Your task to perform on an android device: open app "Facebook Messenger" (install if not already installed) Image 0: 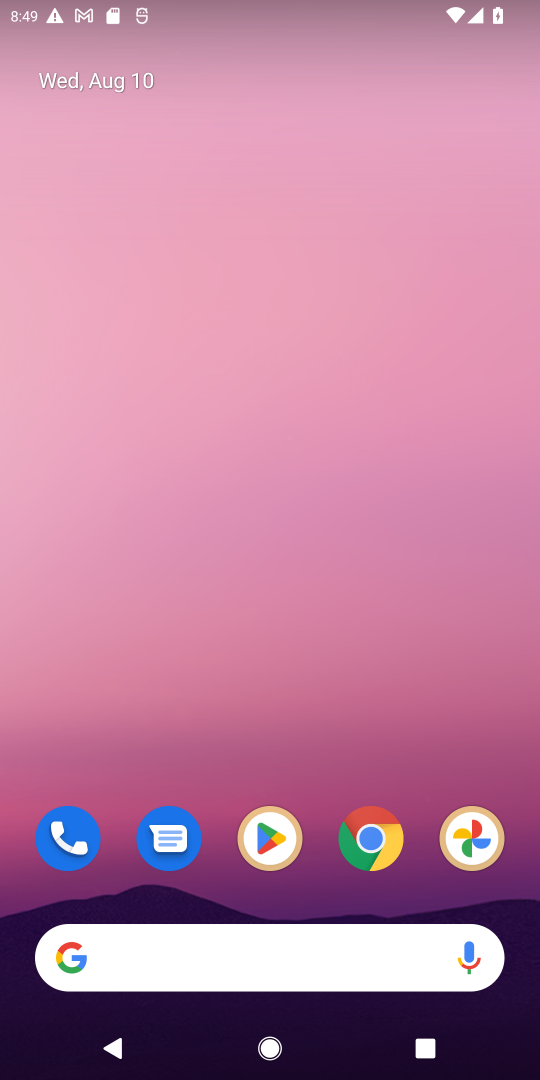
Step 0: press home button
Your task to perform on an android device: open app "Facebook Messenger" (install if not already installed) Image 1: 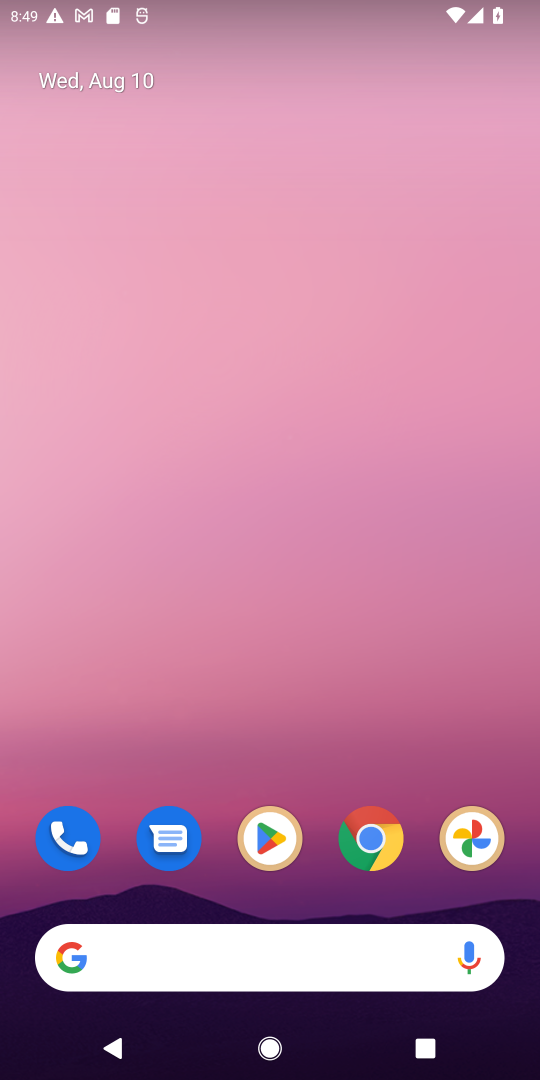
Step 1: click (261, 827)
Your task to perform on an android device: open app "Facebook Messenger" (install if not already installed) Image 2: 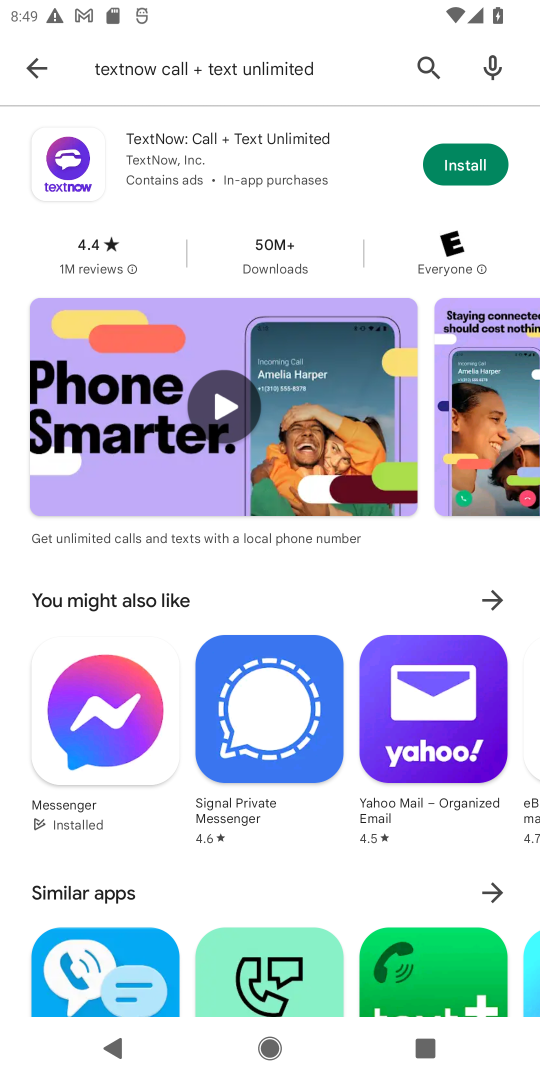
Step 2: click (415, 63)
Your task to perform on an android device: open app "Facebook Messenger" (install if not already installed) Image 3: 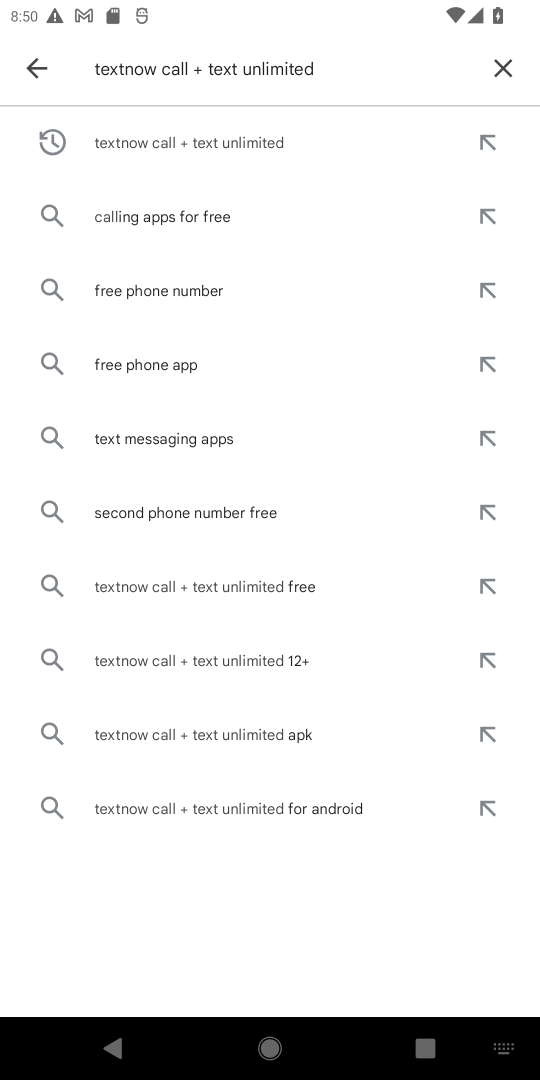
Step 3: click (488, 65)
Your task to perform on an android device: open app "Facebook Messenger" (install if not already installed) Image 4: 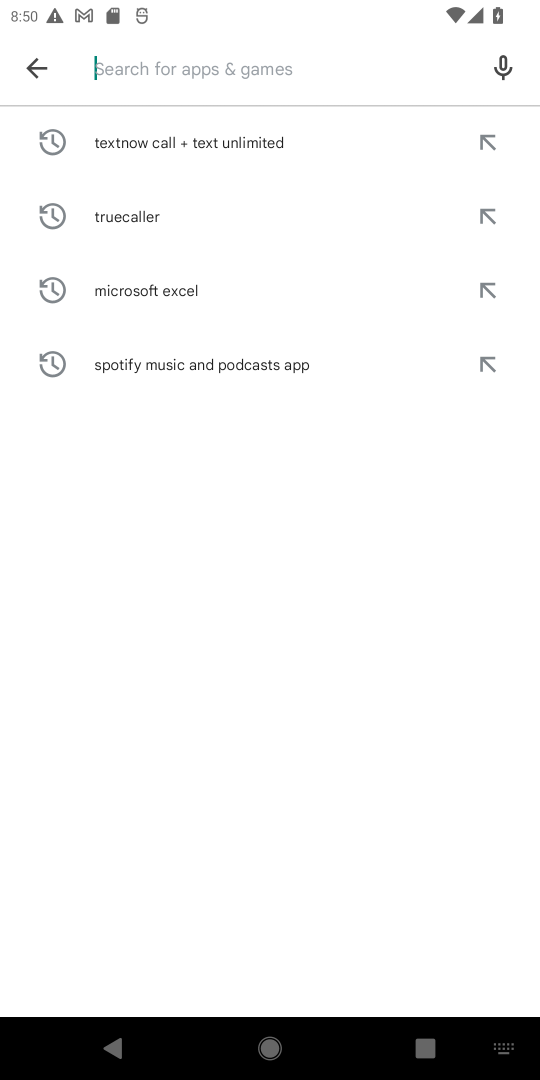
Step 4: type "Facebook Messenger"
Your task to perform on an android device: open app "Facebook Messenger" (install if not already installed) Image 5: 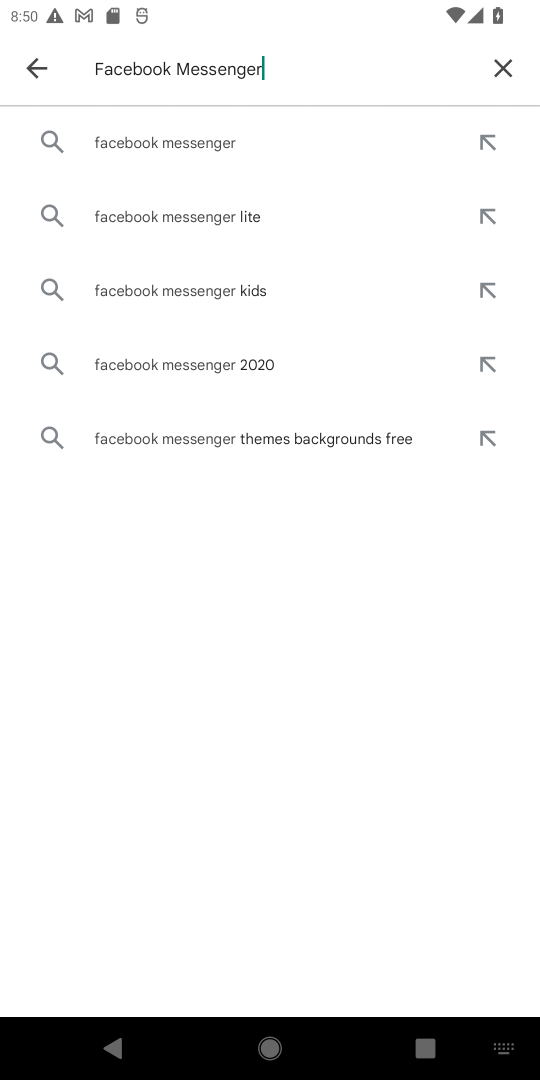
Step 5: click (233, 145)
Your task to perform on an android device: open app "Facebook Messenger" (install if not already installed) Image 6: 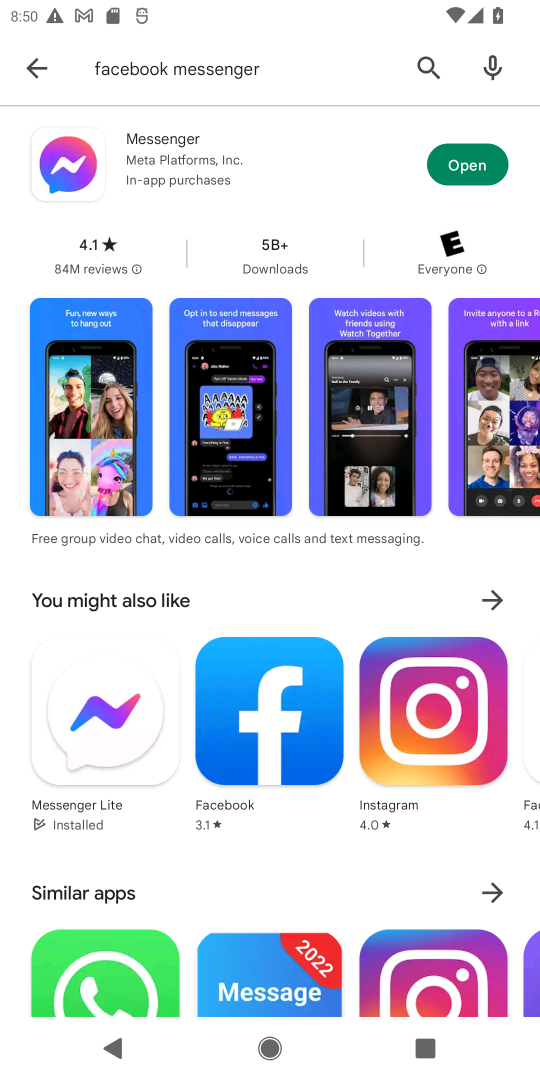
Step 6: click (462, 161)
Your task to perform on an android device: open app "Facebook Messenger" (install if not already installed) Image 7: 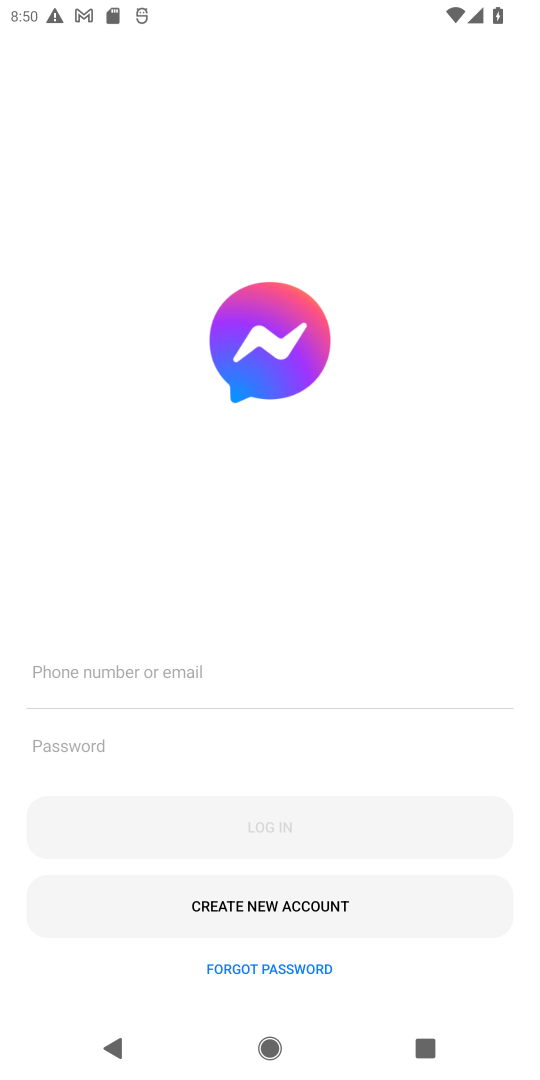
Step 7: task complete